Your task to perform on an android device: Open Google Maps and go to "Timeline" Image 0: 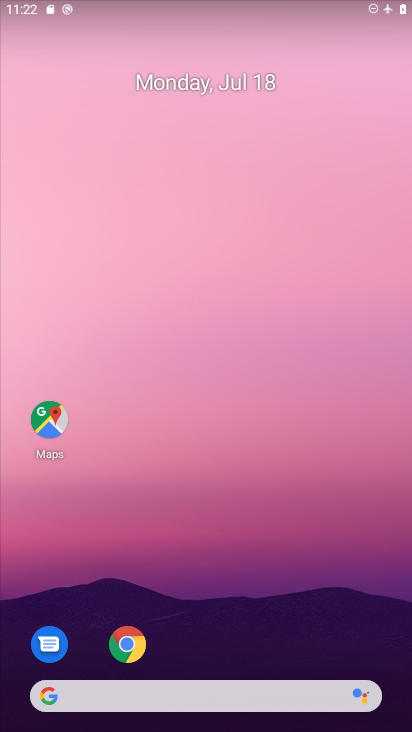
Step 0: drag from (189, 676) to (150, 116)
Your task to perform on an android device: Open Google Maps and go to "Timeline" Image 1: 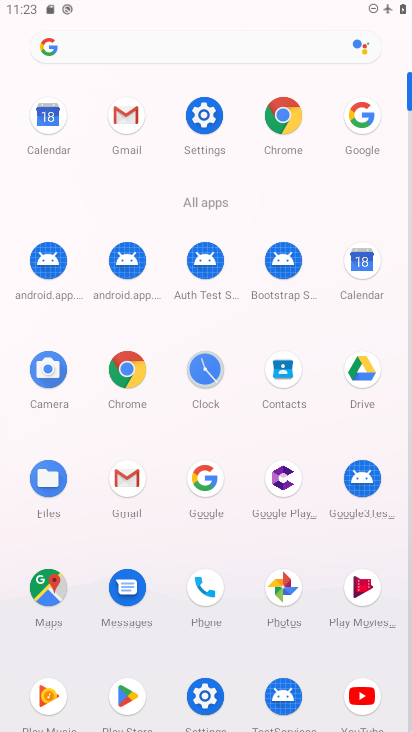
Step 1: click (39, 587)
Your task to perform on an android device: Open Google Maps and go to "Timeline" Image 2: 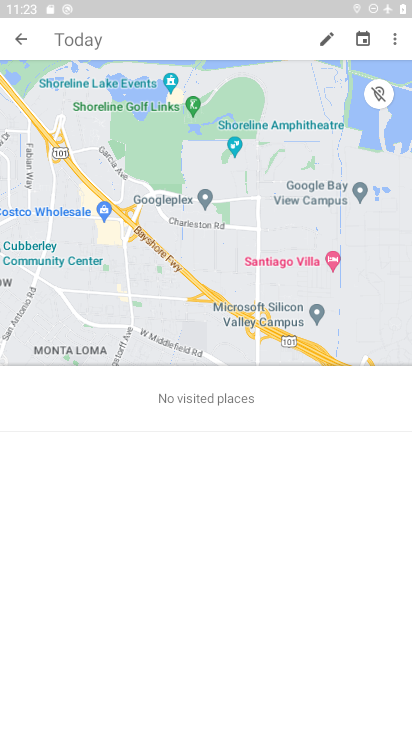
Step 2: click (36, 41)
Your task to perform on an android device: Open Google Maps and go to "Timeline" Image 3: 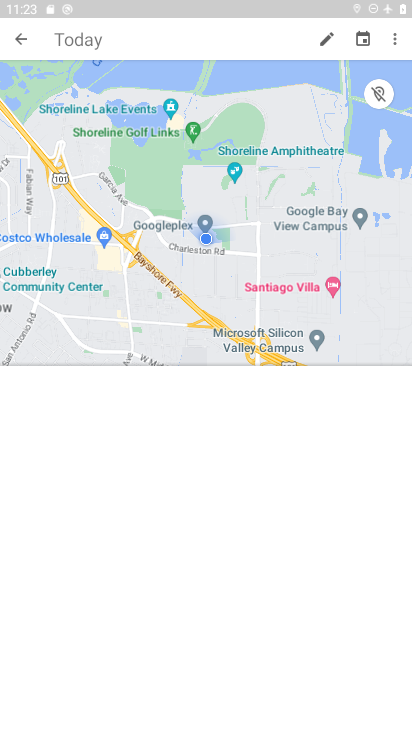
Step 3: task complete